Your task to perform on an android device: delete browsing data in the chrome app Image 0: 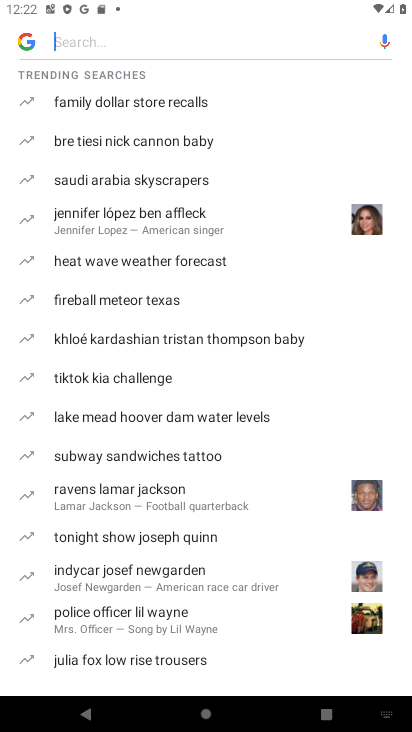
Step 0: press home button
Your task to perform on an android device: delete browsing data in the chrome app Image 1: 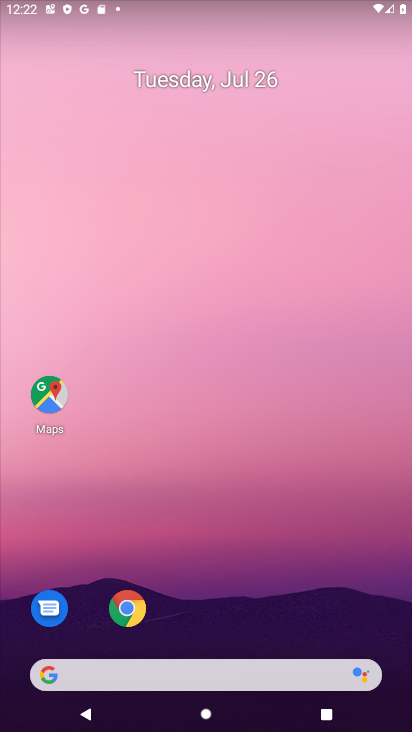
Step 1: click (120, 619)
Your task to perform on an android device: delete browsing data in the chrome app Image 2: 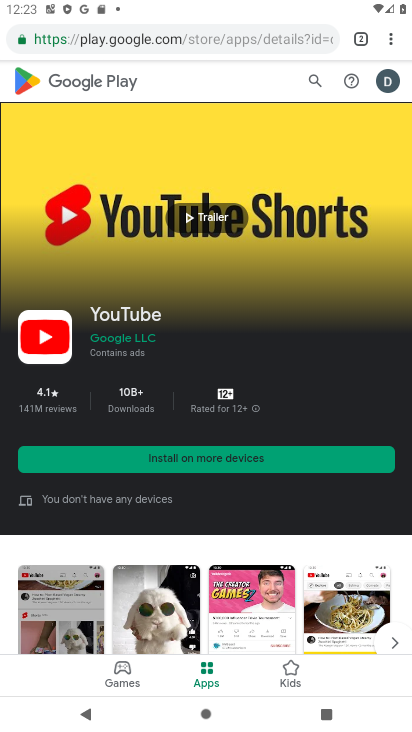
Step 2: click (404, 40)
Your task to perform on an android device: delete browsing data in the chrome app Image 3: 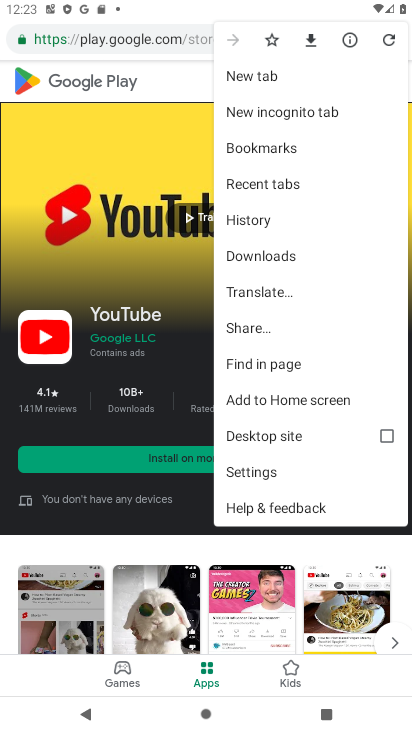
Step 3: click (254, 231)
Your task to perform on an android device: delete browsing data in the chrome app Image 4: 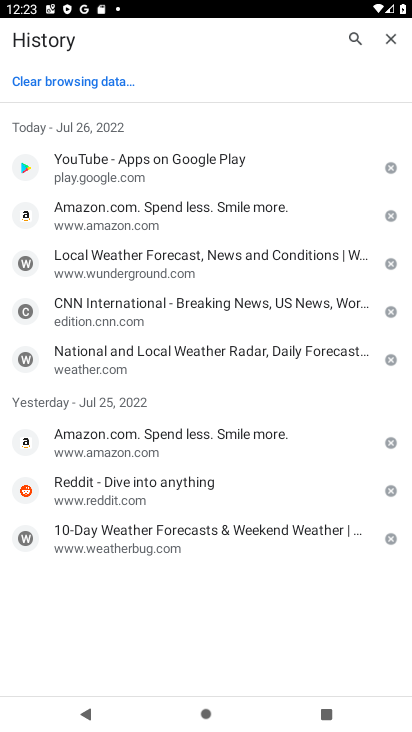
Step 4: click (86, 92)
Your task to perform on an android device: delete browsing data in the chrome app Image 5: 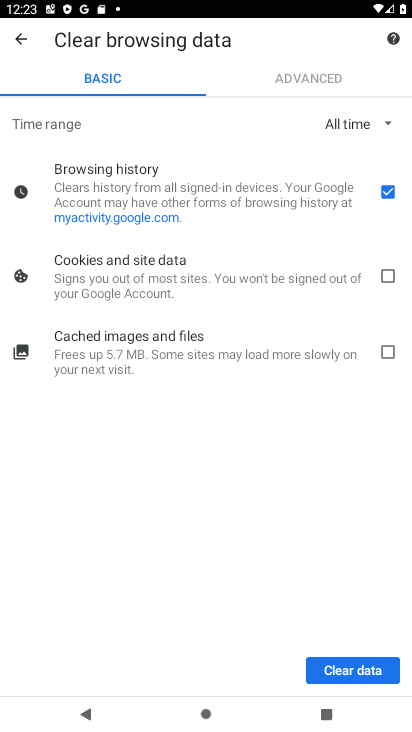
Step 5: click (355, 677)
Your task to perform on an android device: delete browsing data in the chrome app Image 6: 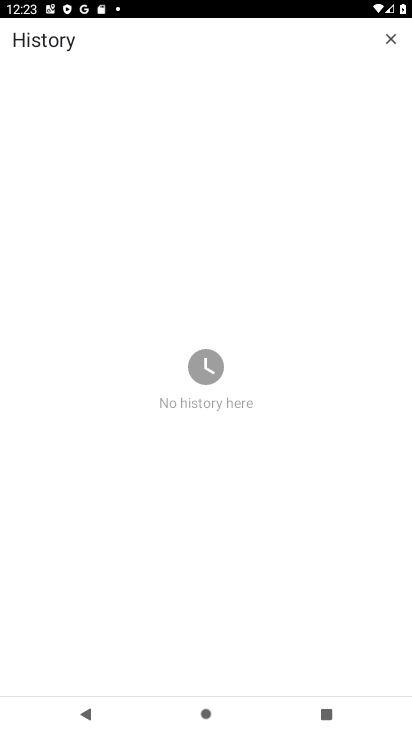
Step 6: task complete